Your task to perform on an android device: change the upload size in google photos Image 0: 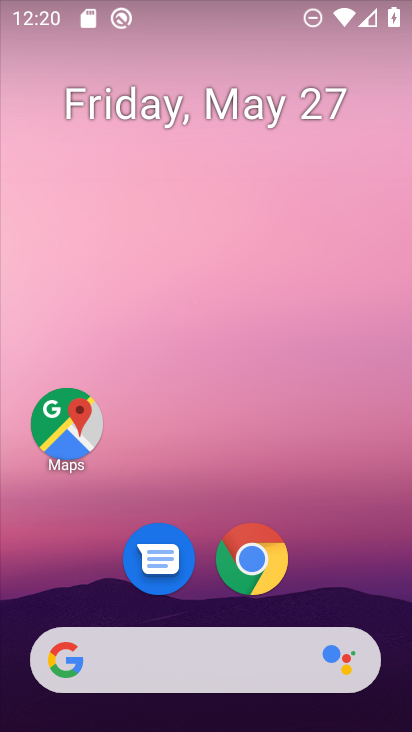
Step 0: drag from (358, 569) to (343, 3)
Your task to perform on an android device: change the upload size in google photos Image 1: 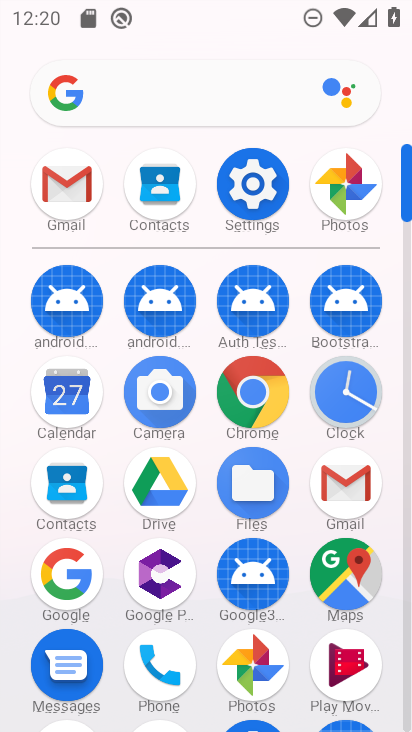
Step 1: click (246, 645)
Your task to perform on an android device: change the upload size in google photos Image 2: 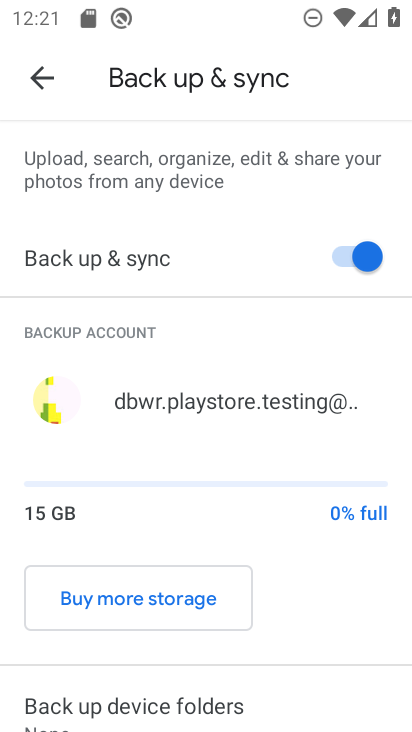
Step 2: drag from (306, 639) to (293, 315)
Your task to perform on an android device: change the upload size in google photos Image 3: 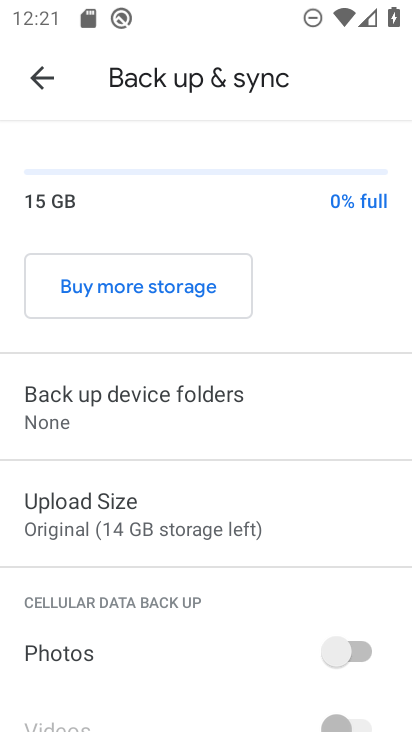
Step 3: click (112, 492)
Your task to perform on an android device: change the upload size in google photos Image 4: 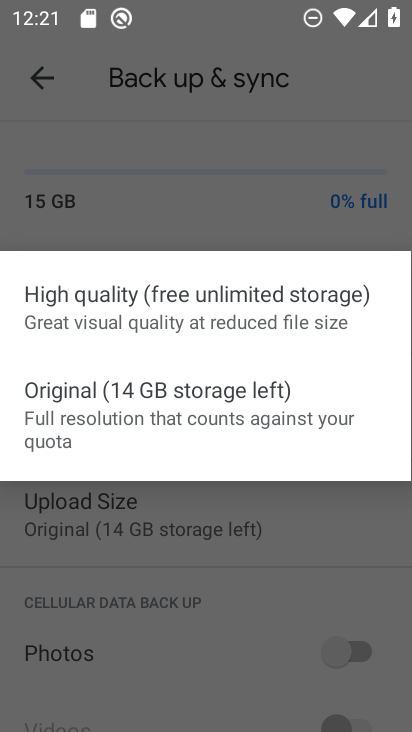
Step 4: click (155, 298)
Your task to perform on an android device: change the upload size in google photos Image 5: 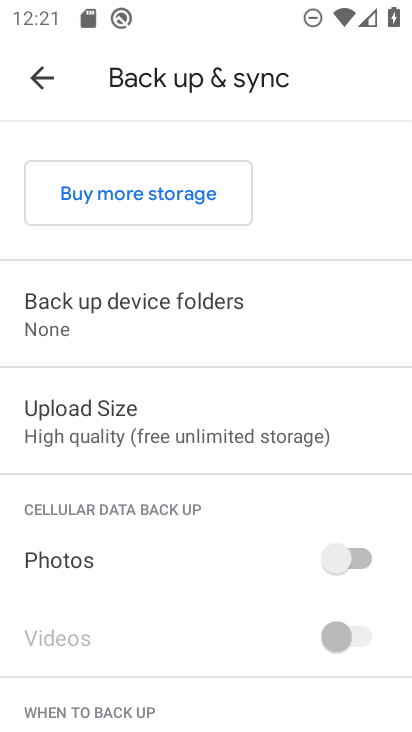
Step 5: task complete